Your task to perform on an android device: toggle pop-ups in chrome Image 0: 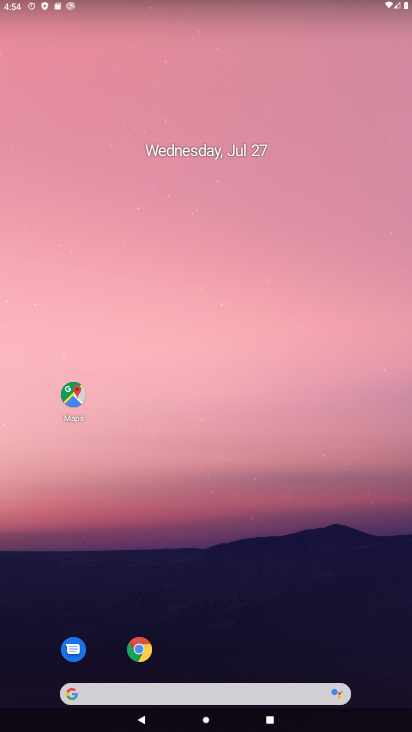
Step 0: click (139, 650)
Your task to perform on an android device: toggle pop-ups in chrome Image 1: 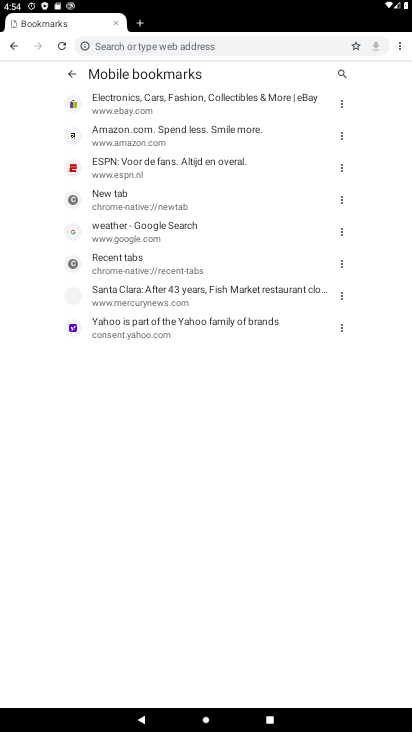
Step 1: click (402, 47)
Your task to perform on an android device: toggle pop-ups in chrome Image 2: 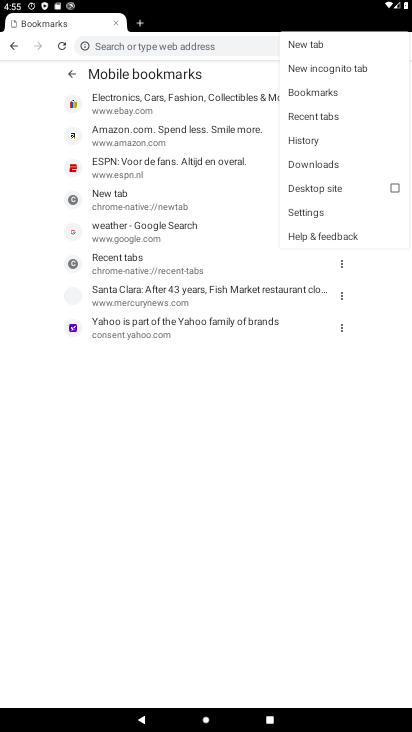
Step 2: click (308, 209)
Your task to perform on an android device: toggle pop-ups in chrome Image 3: 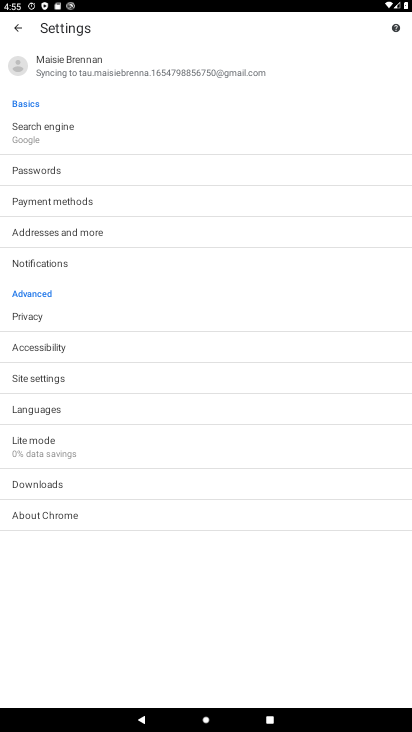
Step 3: click (48, 379)
Your task to perform on an android device: toggle pop-ups in chrome Image 4: 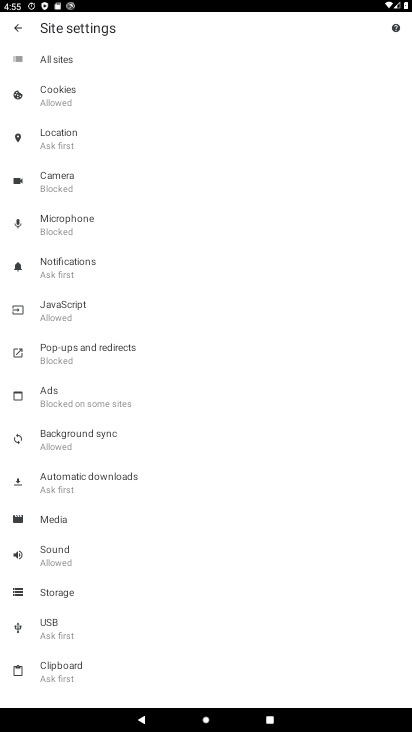
Step 4: click (86, 345)
Your task to perform on an android device: toggle pop-ups in chrome Image 5: 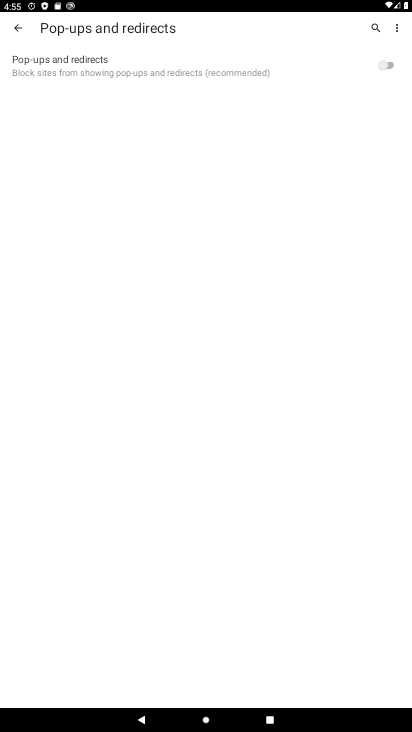
Step 5: click (383, 68)
Your task to perform on an android device: toggle pop-ups in chrome Image 6: 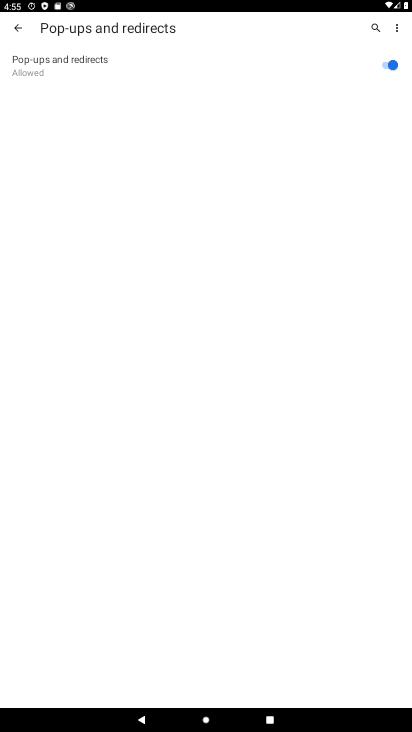
Step 6: task complete